Your task to perform on an android device: Open Google Maps and go to "Timeline" Image 0: 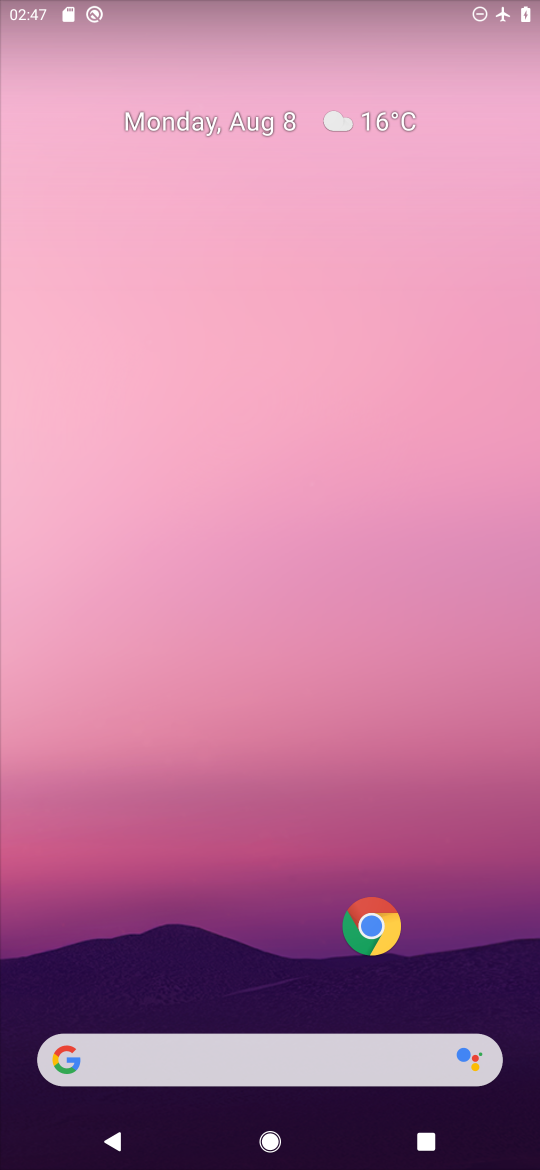
Step 0: drag from (317, 1079) to (368, 51)
Your task to perform on an android device: Open Google Maps and go to "Timeline" Image 1: 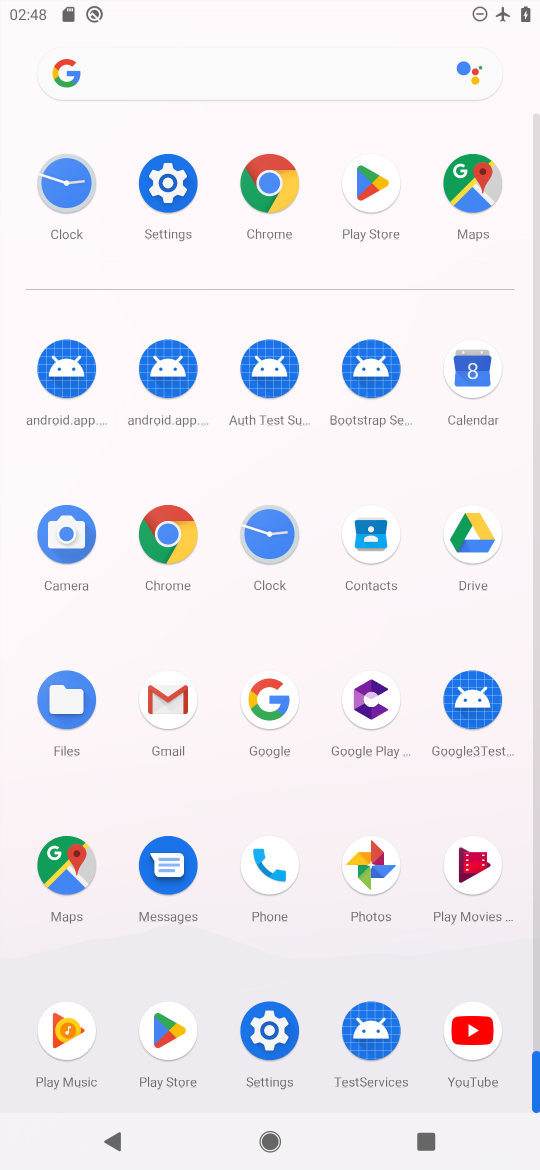
Step 1: click (59, 876)
Your task to perform on an android device: Open Google Maps and go to "Timeline" Image 2: 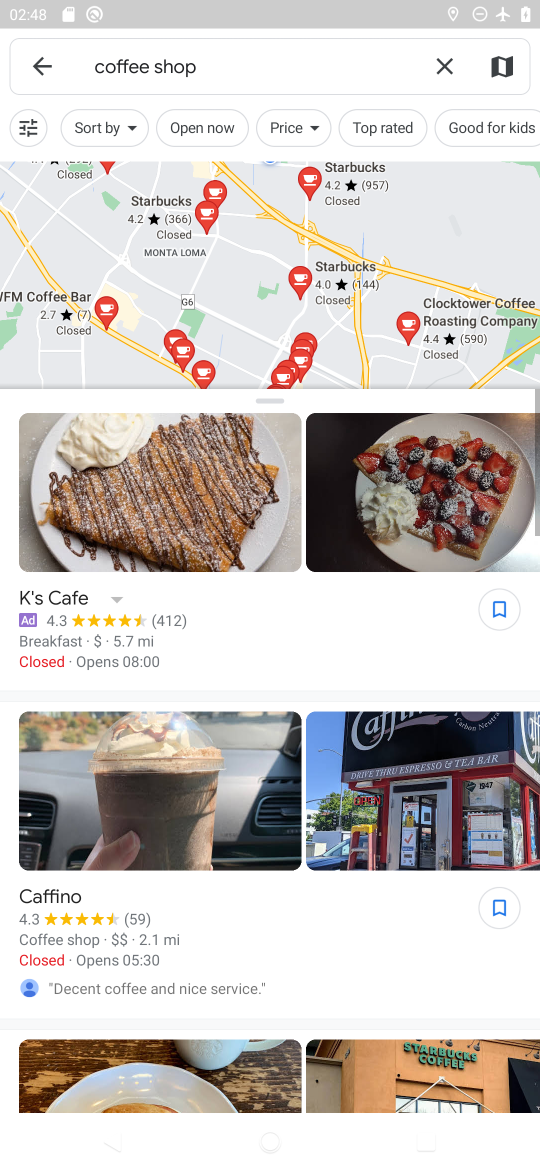
Step 2: click (456, 49)
Your task to perform on an android device: Open Google Maps and go to "Timeline" Image 3: 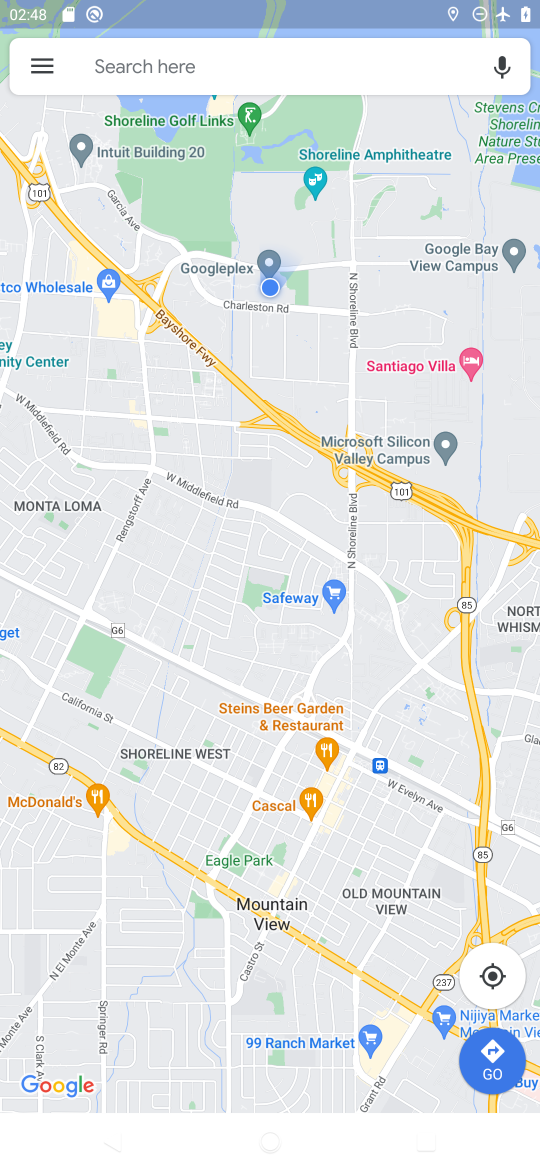
Step 3: click (22, 55)
Your task to perform on an android device: Open Google Maps and go to "Timeline" Image 4: 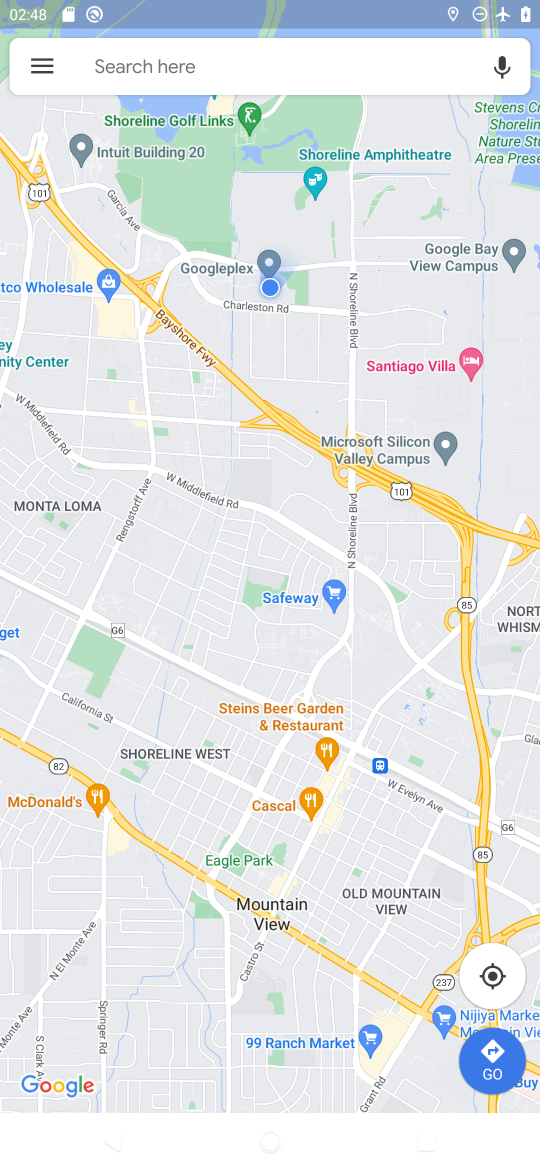
Step 4: click (35, 49)
Your task to perform on an android device: Open Google Maps and go to "Timeline" Image 5: 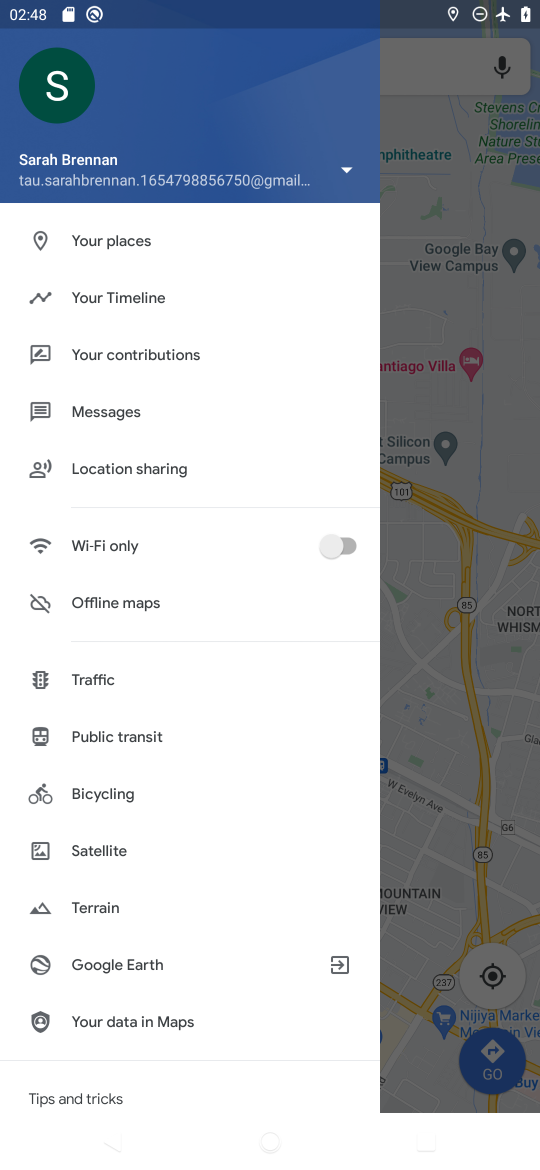
Step 5: click (120, 288)
Your task to perform on an android device: Open Google Maps and go to "Timeline" Image 6: 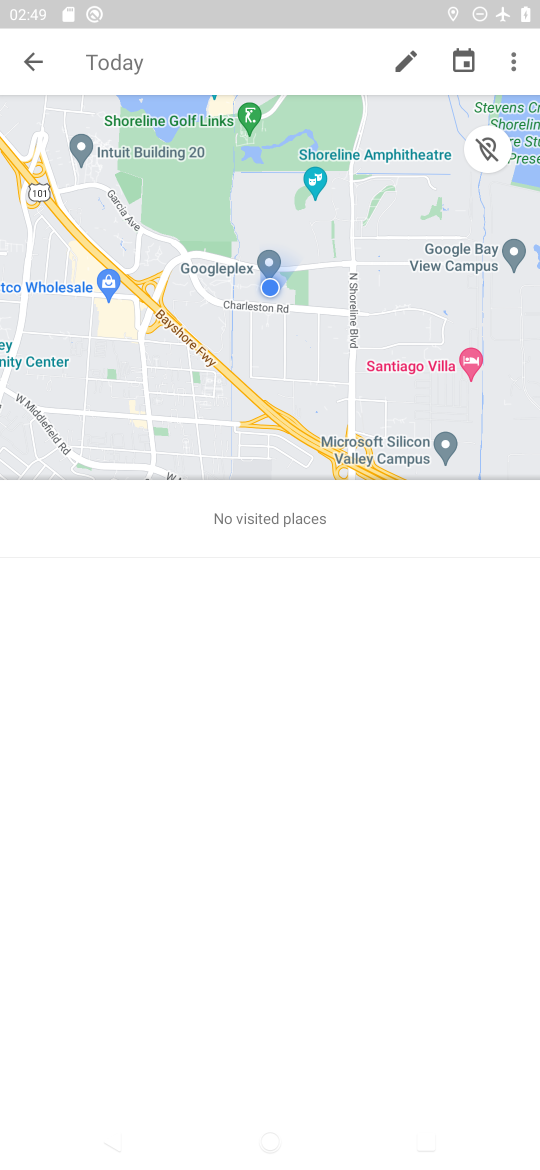
Step 6: task complete